Your task to perform on an android device: check battery use Image 0: 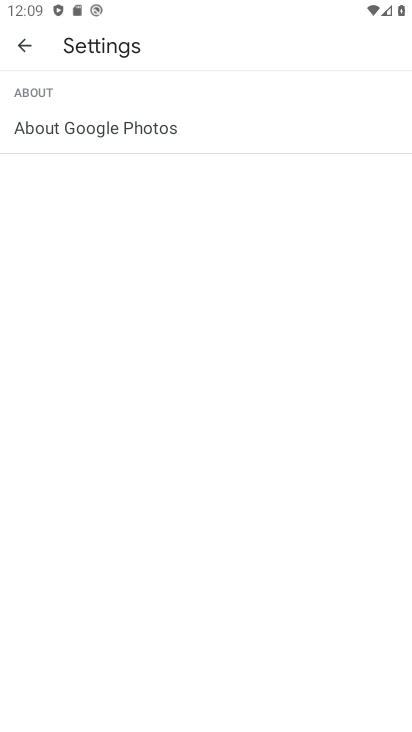
Step 0: press home button
Your task to perform on an android device: check battery use Image 1: 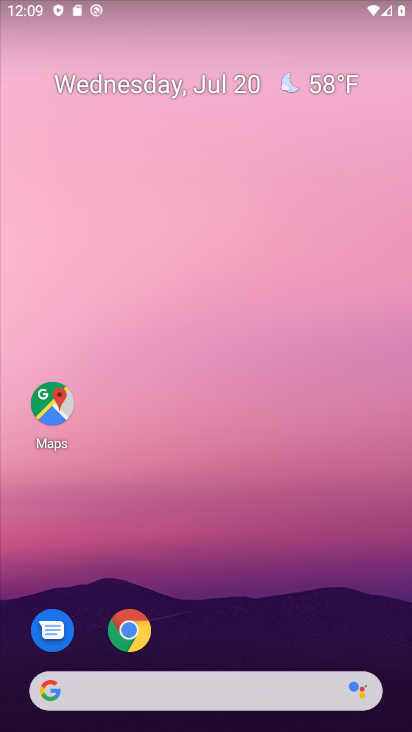
Step 1: drag from (168, 700) to (353, 61)
Your task to perform on an android device: check battery use Image 2: 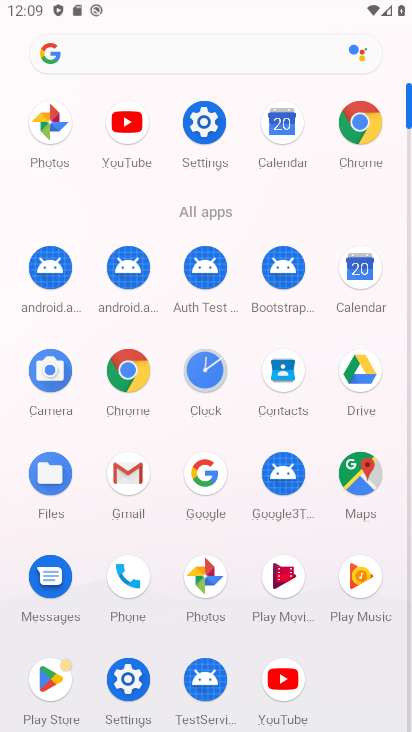
Step 2: click (200, 126)
Your task to perform on an android device: check battery use Image 3: 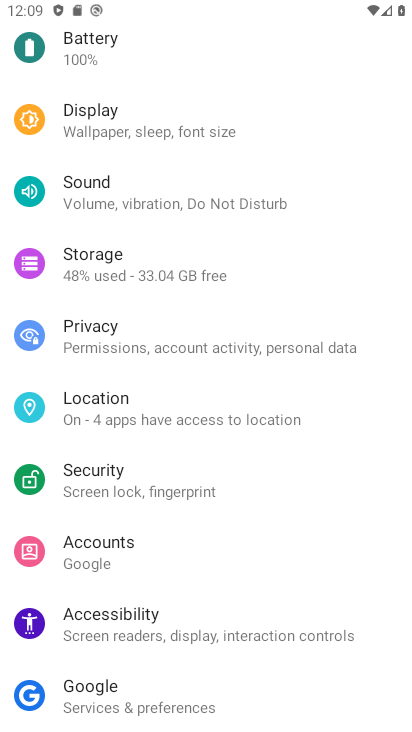
Step 3: click (82, 52)
Your task to perform on an android device: check battery use Image 4: 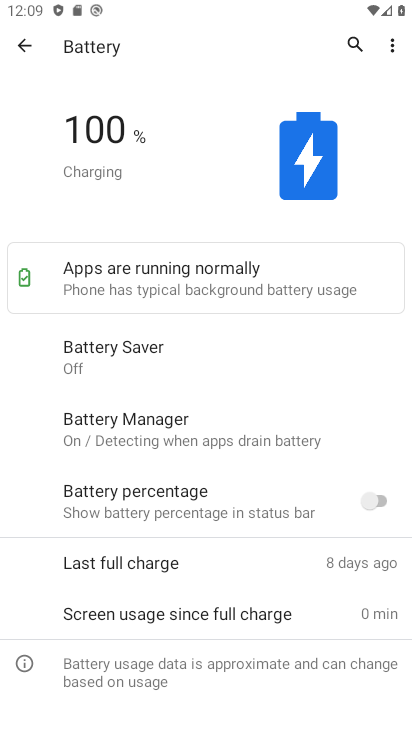
Step 4: click (389, 45)
Your task to perform on an android device: check battery use Image 5: 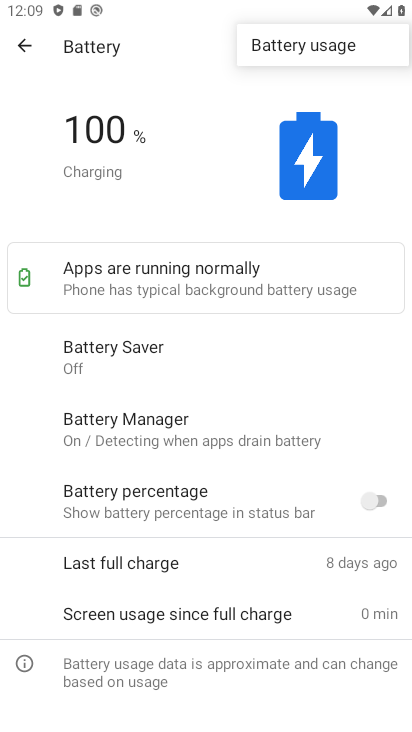
Step 5: click (322, 45)
Your task to perform on an android device: check battery use Image 6: 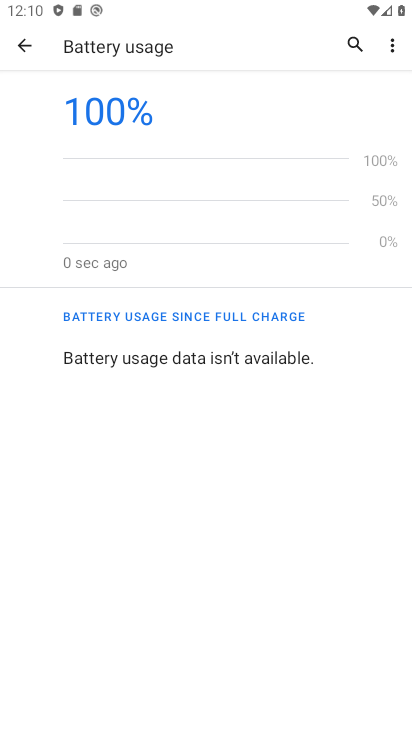
Step 6: task complete